Your task to perform on an android device: find snoozed emails in the gmail app Image 0: 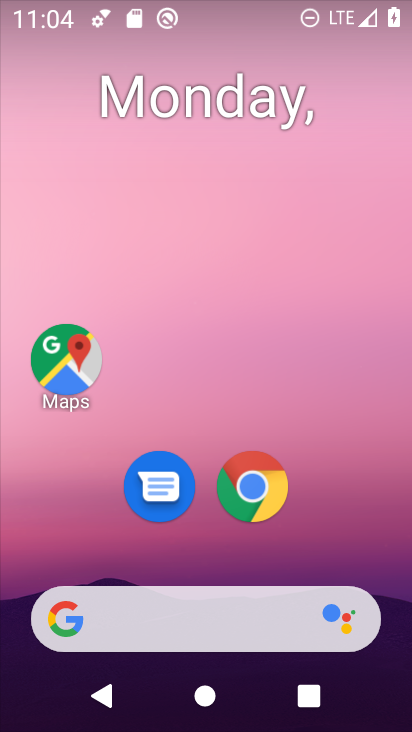
Step 0: drag from (126, 443) to (259, 189)
Your task to perform on an android device: find snoozed emails in the gmail app Image 1: 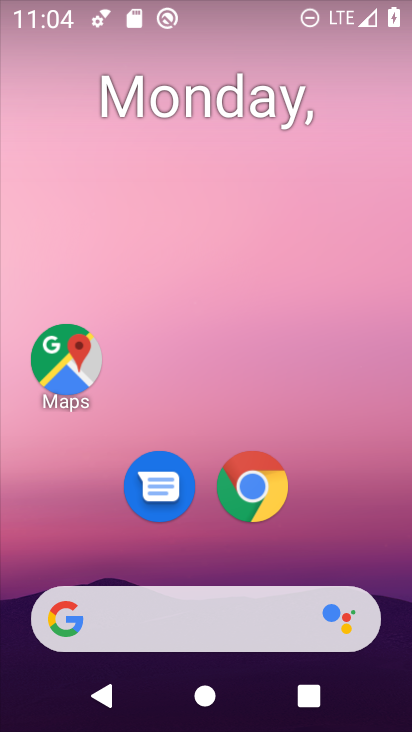
Step 1: drag from (40, 609) to (315, 165)
Your task to perform on an android device: find snoozed emails in the gmail app Image 2: 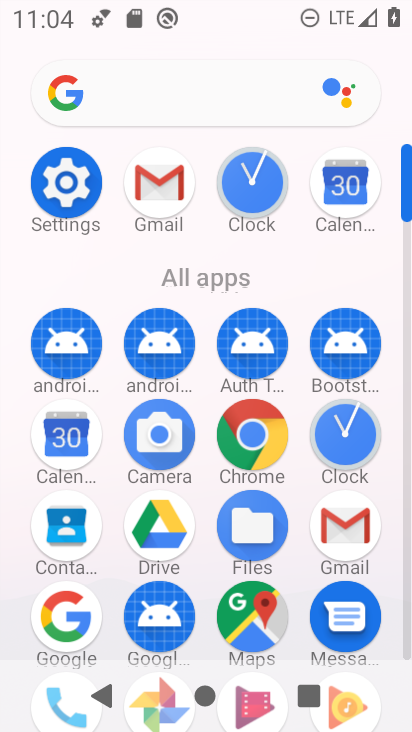
Step 2: click (334, 530)
Your task to perform on an android device: find snoozed emails in the gmail app Image 3: 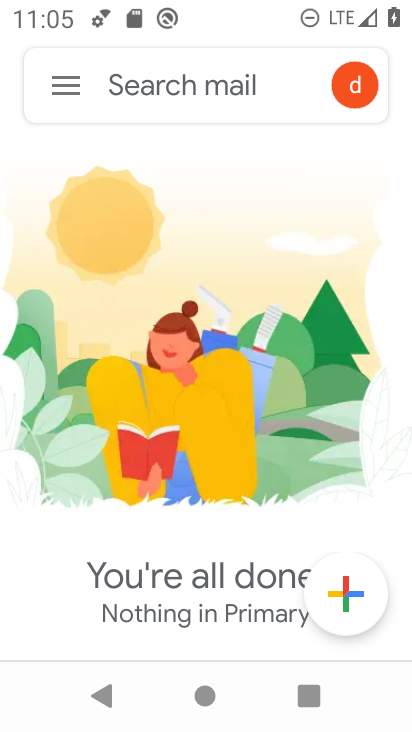
Step 3: click (75, 79)
Your task to perform on an android device: find snoozed emails in the gmail app Image 4: 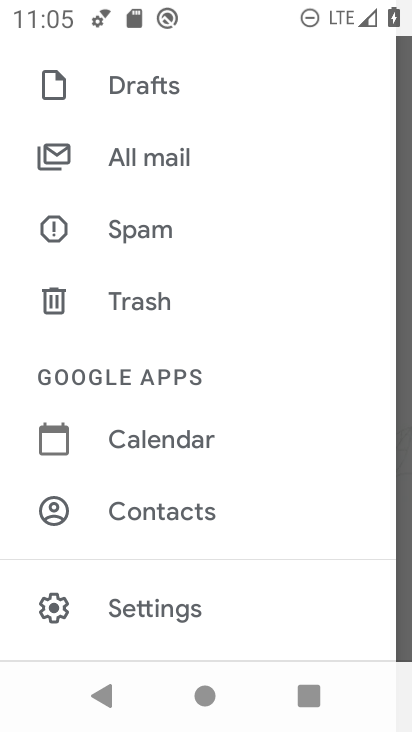
Step 4: drag from (144, 99) to (50, 532)
Your task to perform on an android device: find snoozed emails in the gmail app Image 5: 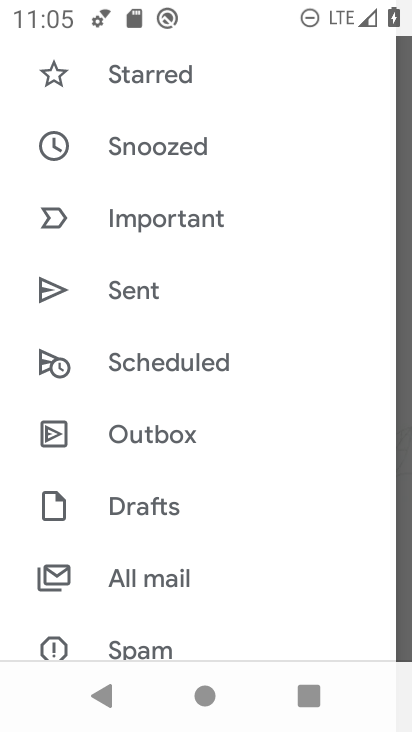
Step 5: click (136, 138)
Your task to perform on an android device: find snoozed emails in the gmail app Image 6: 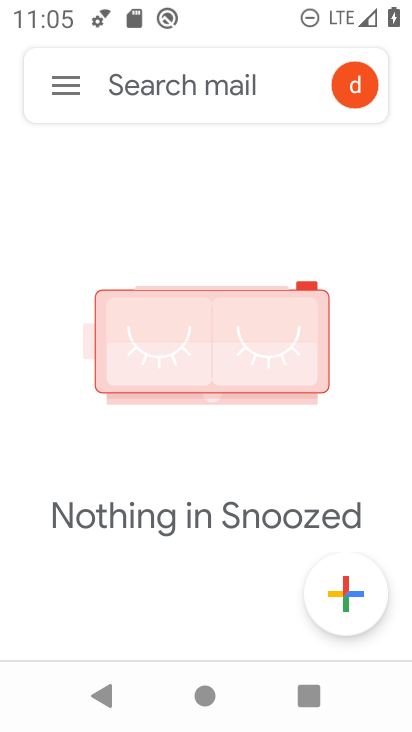
Step 6: task complete